Your task to perform on an android device: Open wifi settings Image 0: 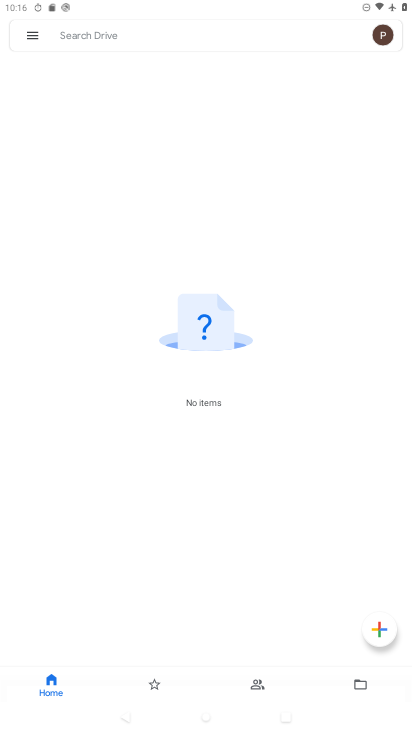
Step 0: press home button
Your task to perform on an android device: Open wifi settings Image 1: 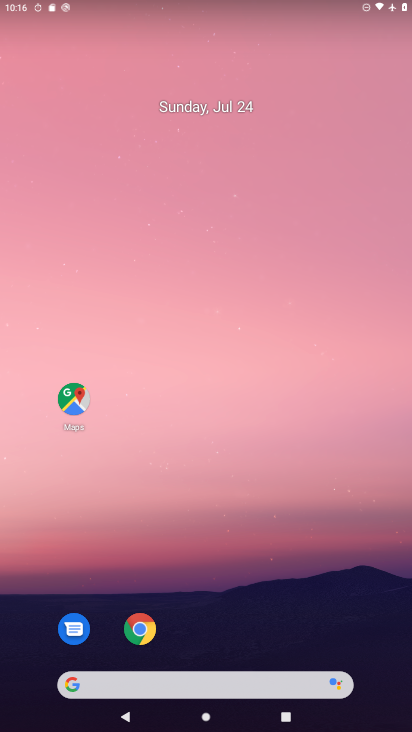
Step 1: drag from (208, 602) to (263, 141)
Your task to perform on an android device: Open wifi settings Image 2: 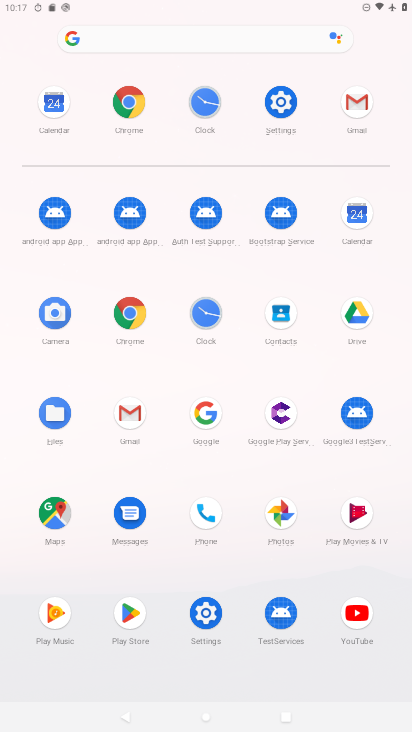
Step 2: click (275, 119)
Your task to perform on an android device: Open wifi settings Image 3: 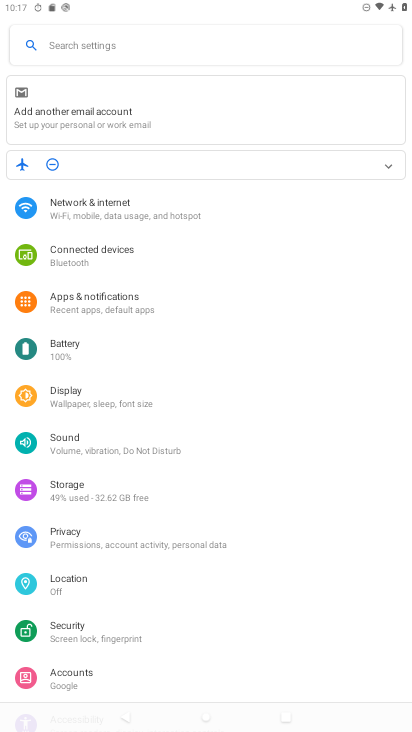
Step 3: click (132, 221)
Your task to perform on an android device: Open wifi settings Image 4: 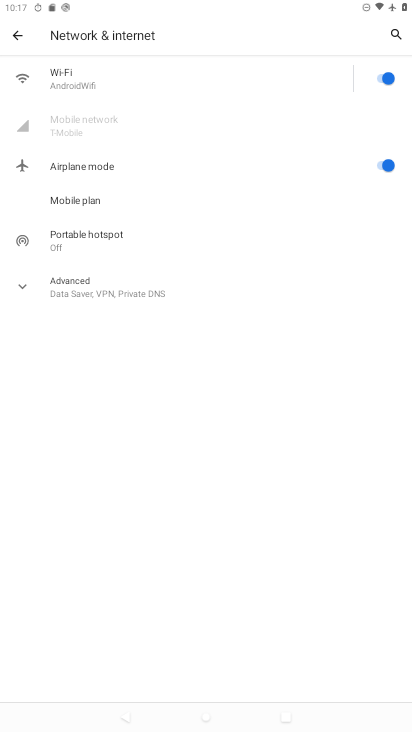
Step 4: click (142, 90)
Your task to perform on an android device: Open wifi settings Image 5: 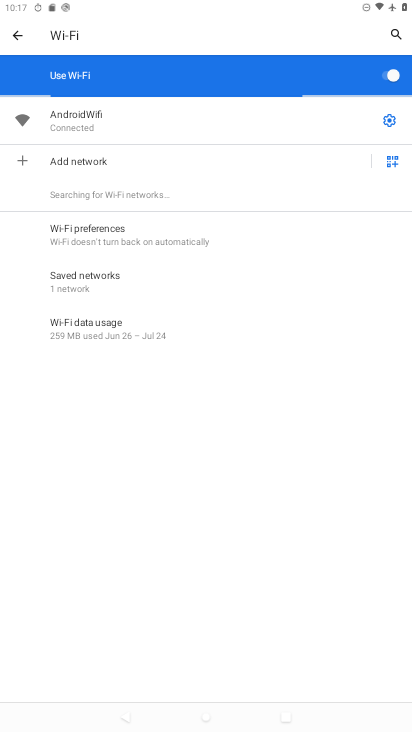
Step 5: task complete